Your task to perform on an android device: Is it going to rain tomorrow? Image 0: 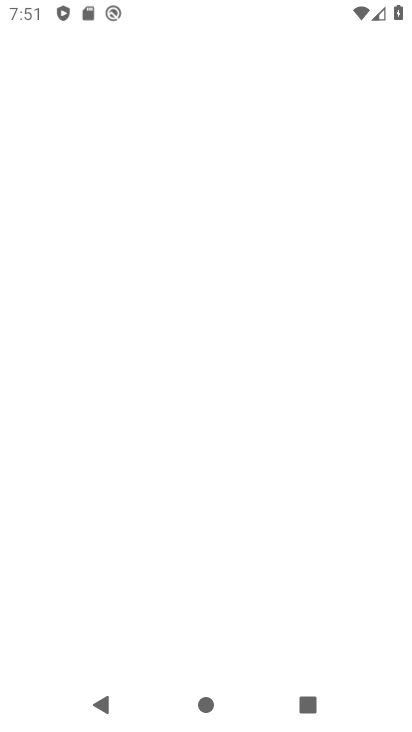
Step 0: click (277, 601)
Your task to perform on an android device: Is it going to rain tomorrow? Image 1: 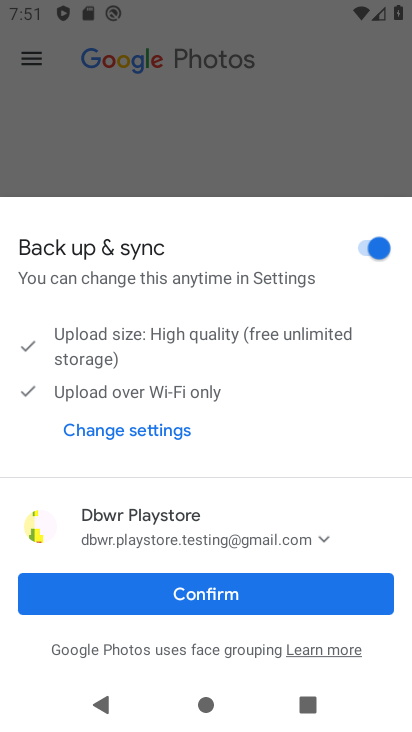
Step 1: press home button
Your task to perform on an android device: Is it going to rain tomorrow? Image 2: 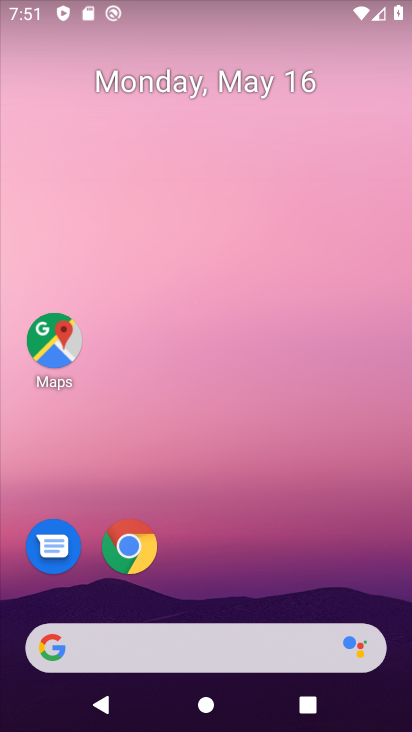
Step 2: drag from (233, 591) to (282, 110)
Your task to perform on an android device: Is it going to rain tomorrow? Image 3: 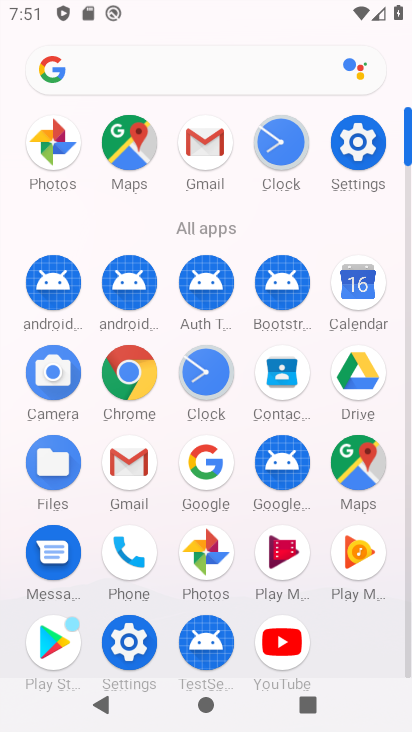
Step 3: click (216, 75)
Your task to perform on an android device: Is it going to rain tomorrow? Image 4: 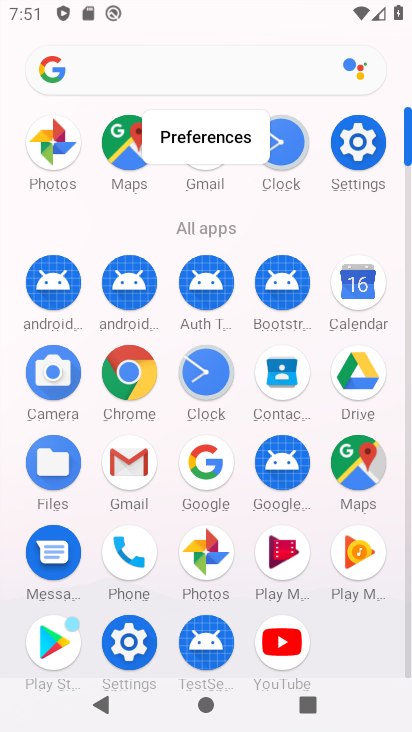
Step 4: click (216, 75)
Your task to perform on an android device: Is it going to rain tomorrow? Image 5: 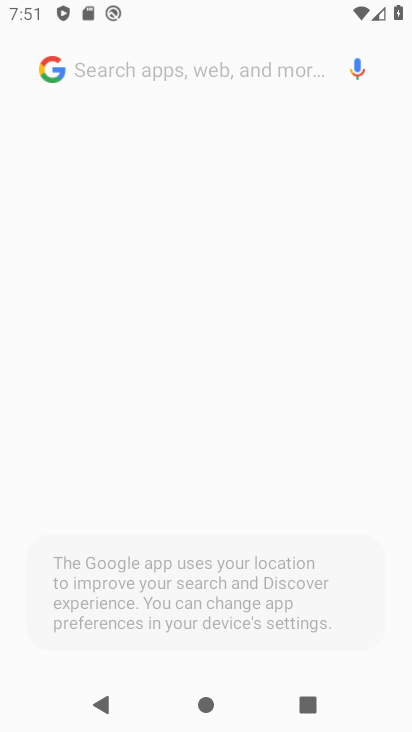
Step 5: click (116, 70)
Your task to perform on an android device: Is it going to rain tomorrow? Image 6: 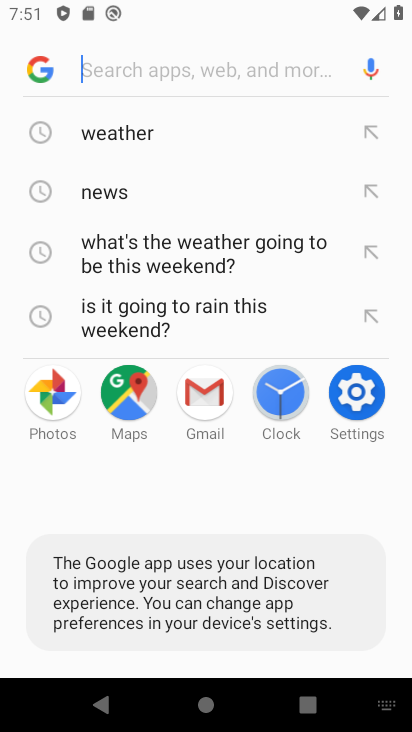
Step 6: click (116, 134)
Your task to perform on an android device: Is it going to rain tomorrow? Image 7: 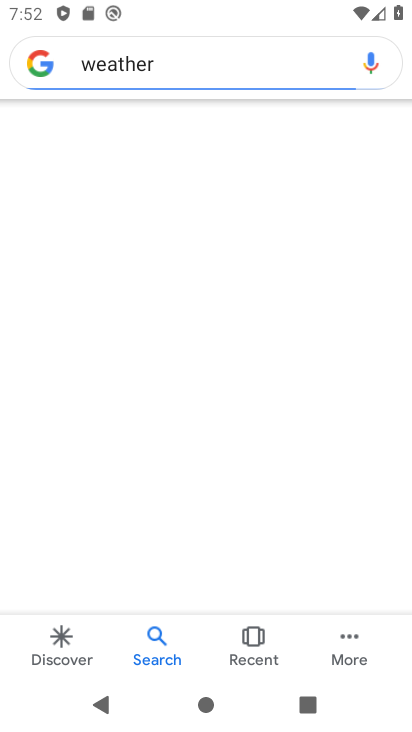
Step 7: task complete